Your task to perform on an android device: Open wifi settings Image 0: 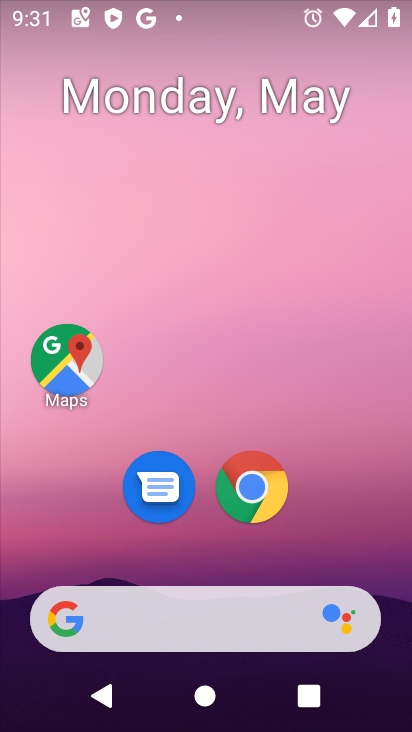
Step 0: drag from (222, 13) to (252, 569)
Your task to perform on an android device: Open wifi settings Image 1: 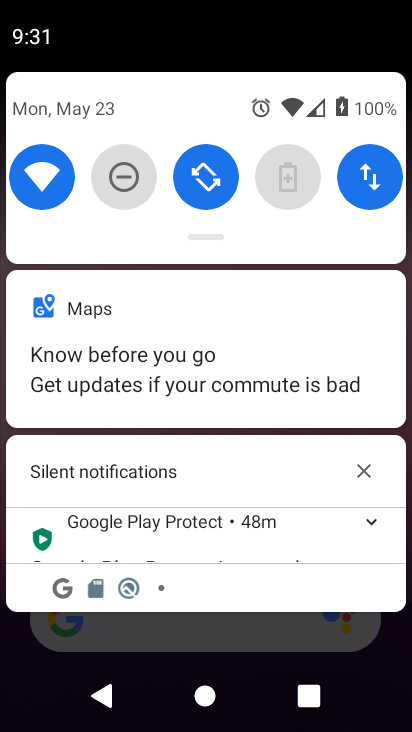
Step 1: click (72, 184)
Your task to perform on an android device: Open wifi settings Image 2: 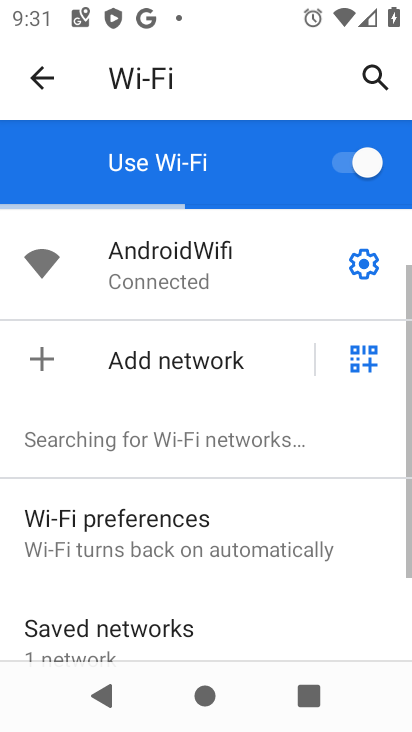
Step 2: click (72, 184)
Your task to perform on an android device: Open wifi settings Image 3: 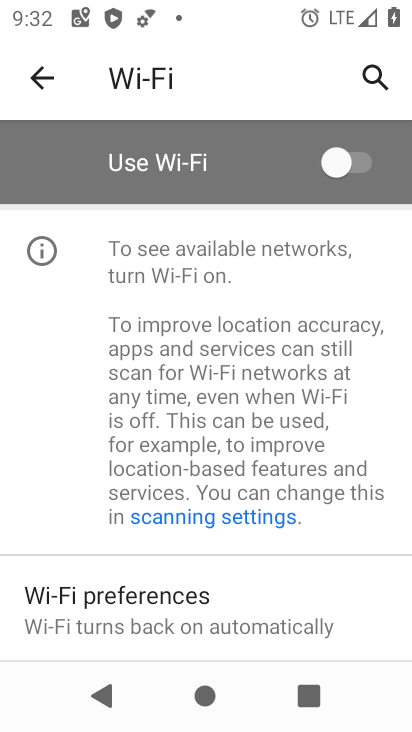
Step 3: click (340, 160)
Your task to perform on an android device: Open wifi settings Image 4: 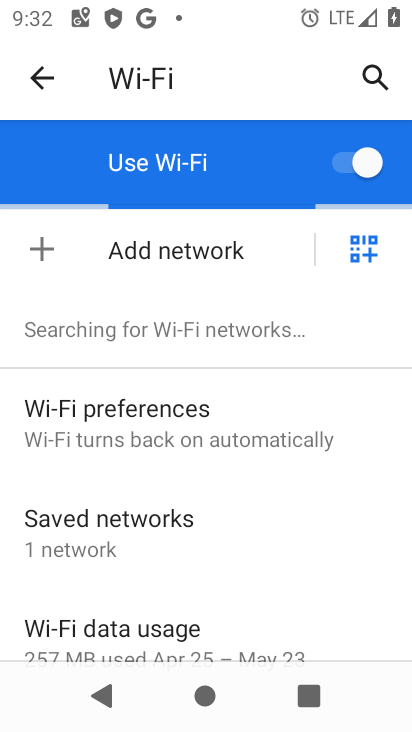
Step 4: task complete